Your task to perform on an android device: Go to CNN.com Image 0: 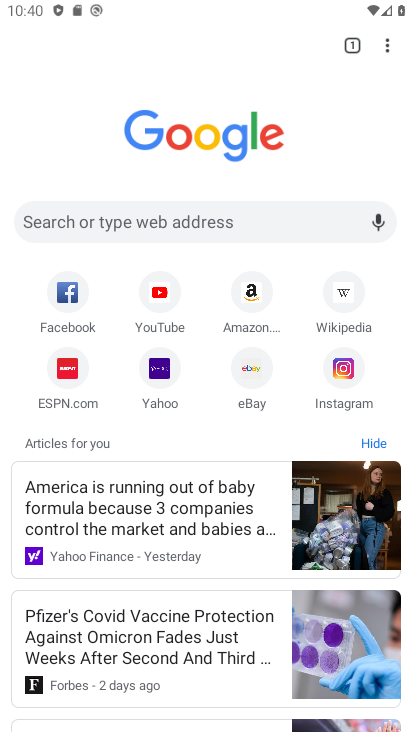
Step 0: click (149, 223)
Your task to perform on an android device: Go to CNN.com Image 1: 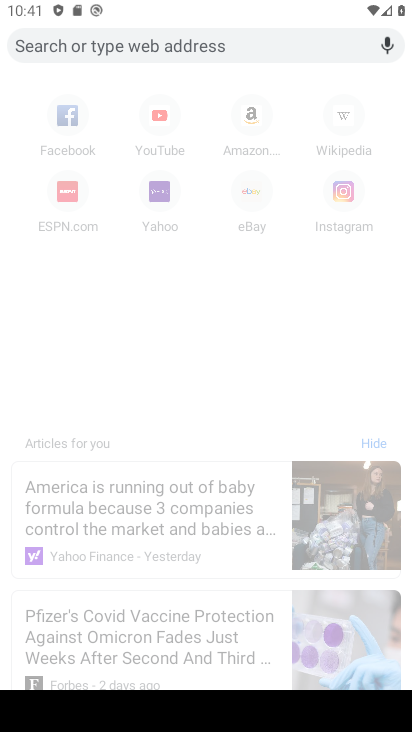
Step 1: type "cnn.com"
Your task to perform on an android device: Go to CNN.com Image 2: 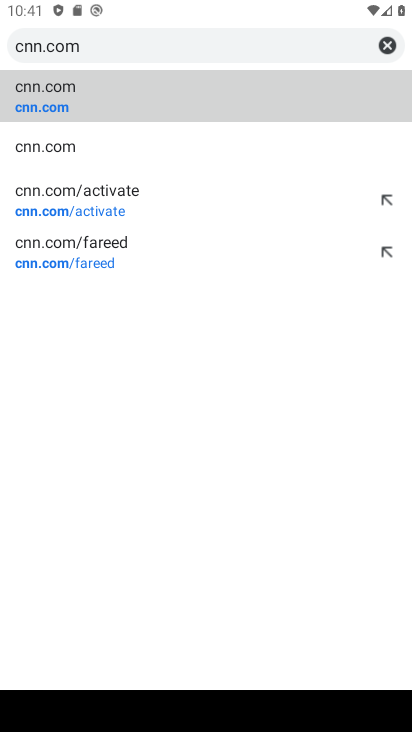
Step 2: click (62, 111)
Your task to perform on an android device: Go to CNN.com Image 3: 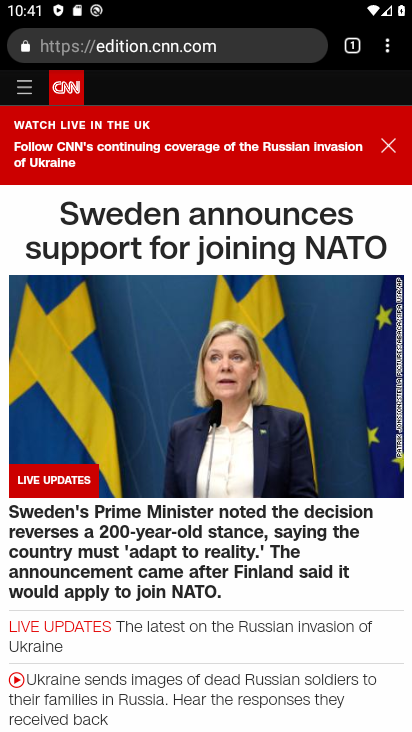
Step 3: task complete